Your task to perform on an android device: What's on my calendar today? Image 0: 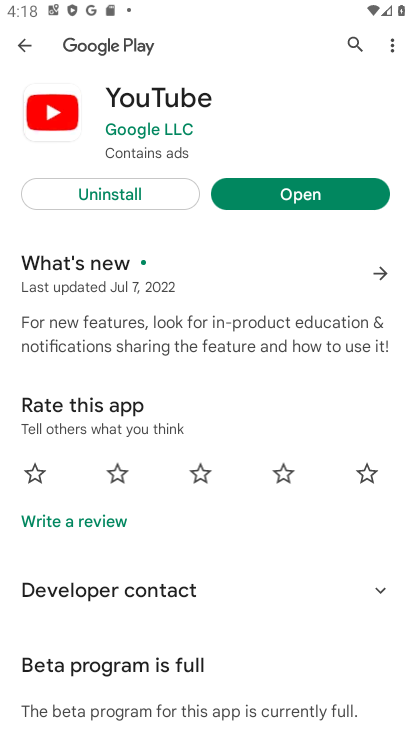
Step 0: press home button
Your task to perform on an android device: What's on my calendar today? Image 1: 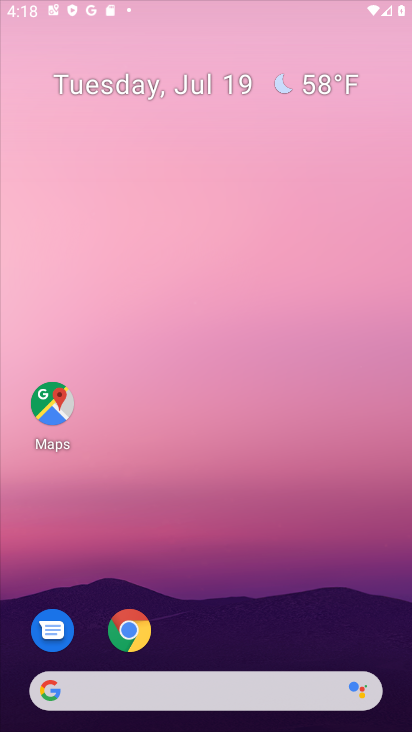
Step 1: drag from (250, 672) to (289, 173)
Your task to perform on an android device: What's on my calendar today? Image 2: 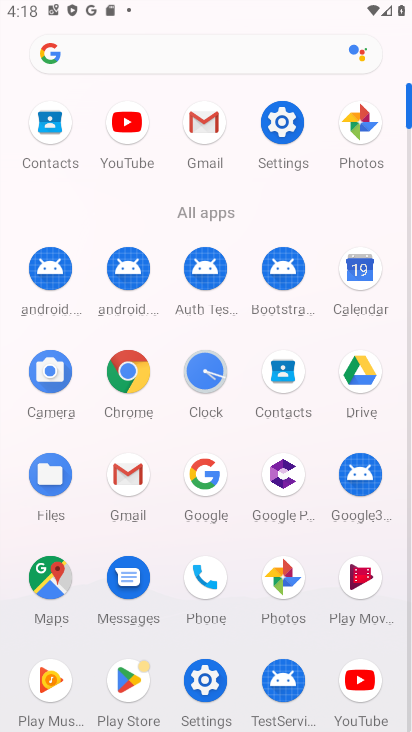
Step 2: click (358, 264)
Your task to perform on an android device: What's on my calendar today? Image 3: 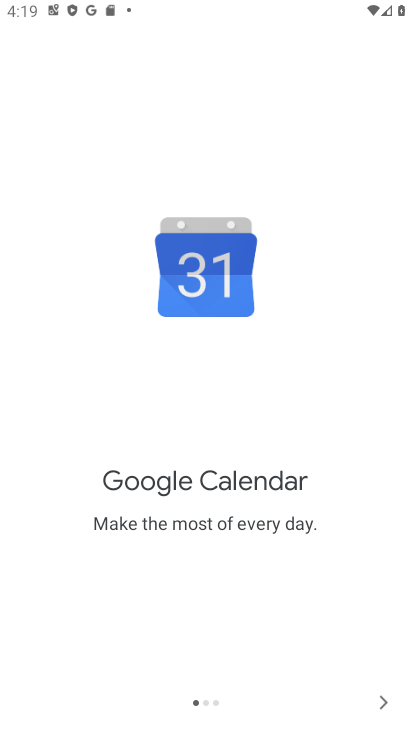
Step 3: click (386, 696)
Your task to perform on an android device: What's on my calendar today? Image 4: 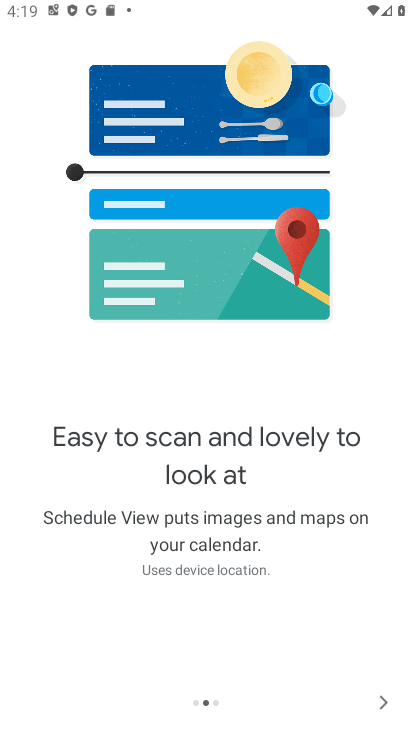
Step 4: click (386, 696)
Your task to perform on an android device: What's on my calendar today? Image 5: 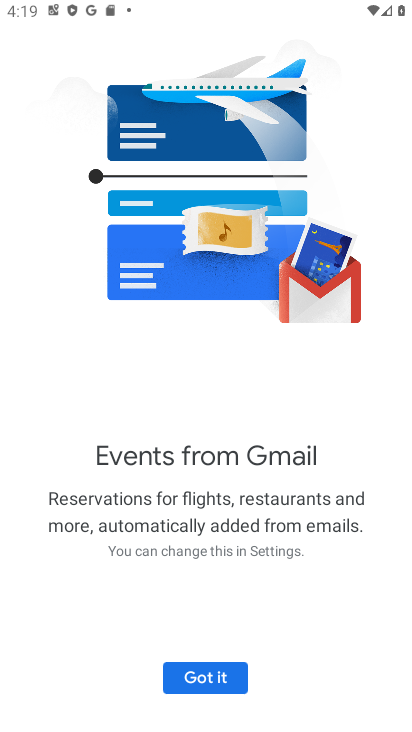
Step 5: click (194, 687)
Your task to perform on an android device: What's on my calendar today? Image 6: 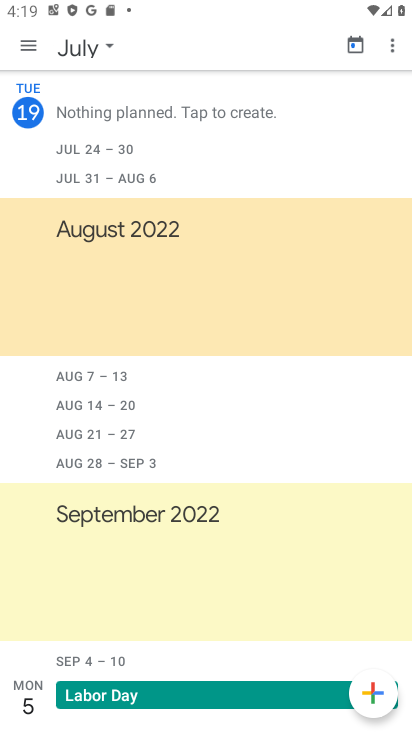
Step 6: click (29, 105)
Your task to perform on an android device: What's on my calendar today? Image 7: 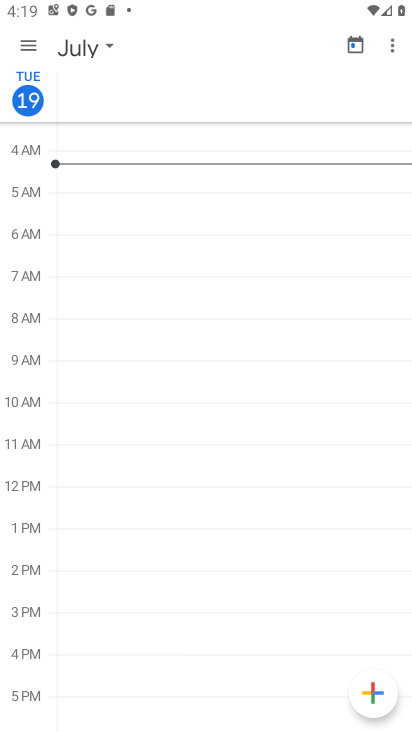
Step 7: task complete